Your task to perform on an android device: snooze an email in the gmail app Image 0: 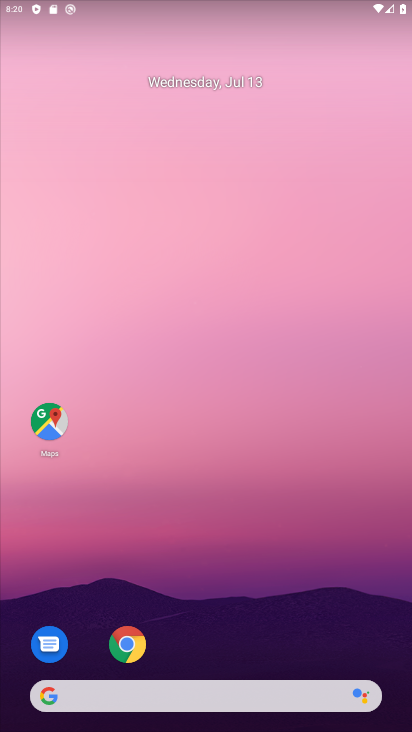
Step 0: drag from (202, 719) to (202, 55)
Your task to perform on an android device: snooze an email in the gmail app Image 1: 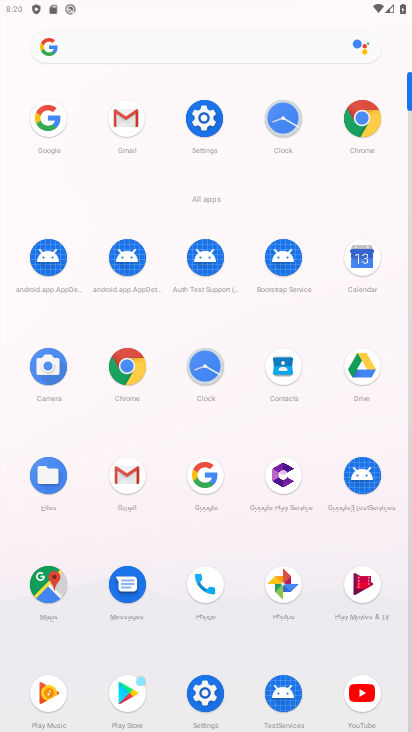
Step 1: click (132, 477)
Your task to perform on an android device: snooze an email in the gmail app Image 2: 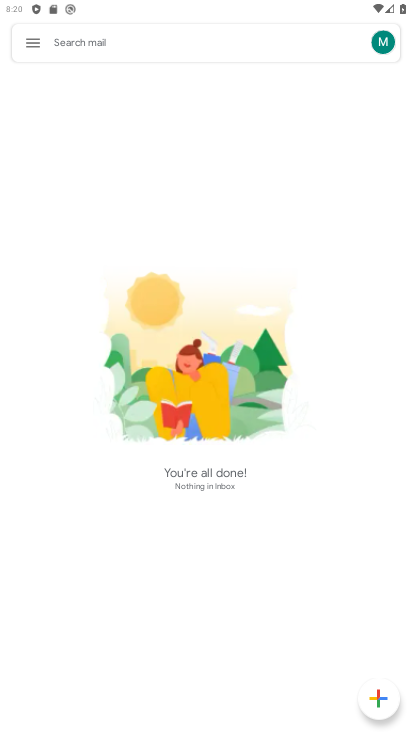
Step 2: task complete